Your task to perform on an android device: Go to Google Image 0: 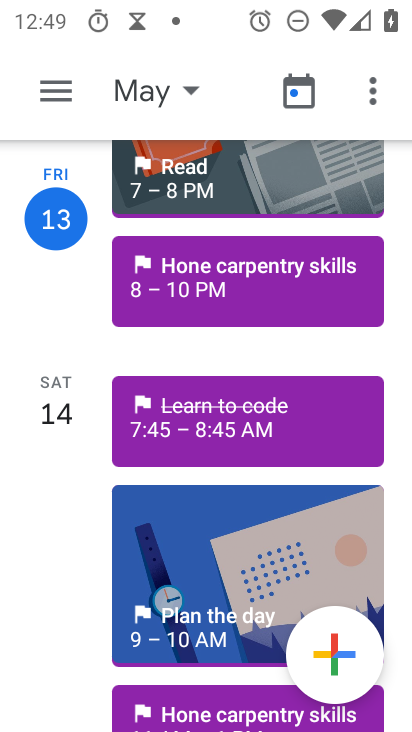
Step 0: press home button
Your task to perform on an android device: Go to Google Image 1: 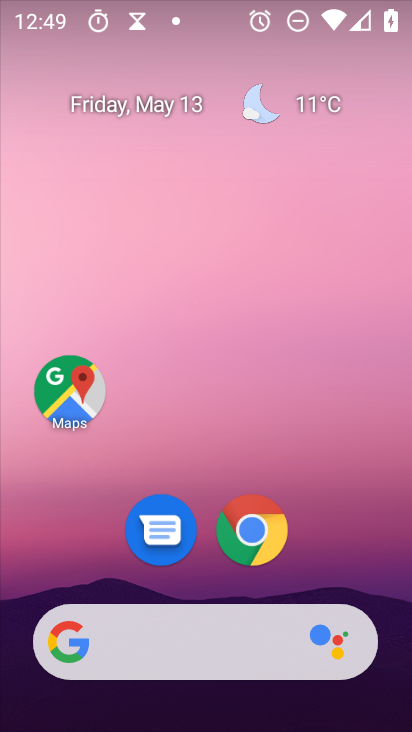
Step 1: drag from (204, 471) to (273, 167)
Your task to perform on an android device: Go to Google Image 2: 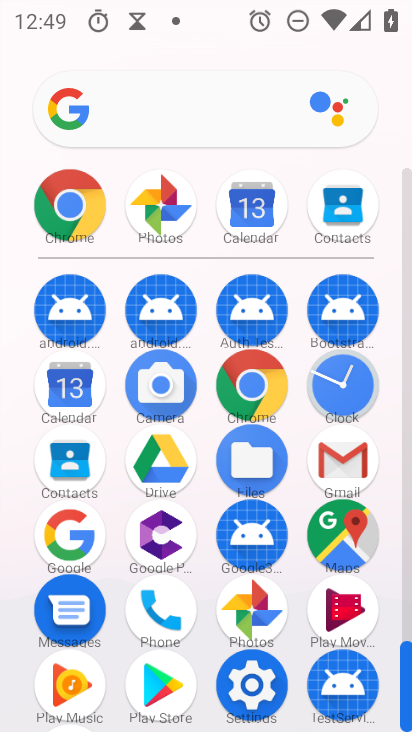
Step 2: click (80, 539)
Your task to perform on an android device: Go to Google Image 3: 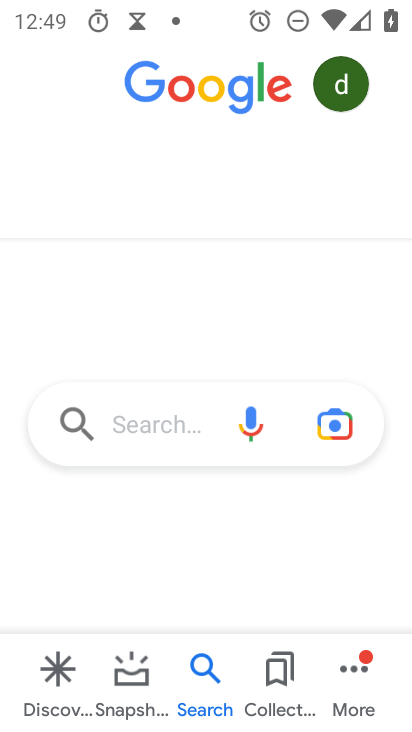
Step 3: task complete